Your task to perform on an android device: turn smart compose on in the gmail app Image 0: 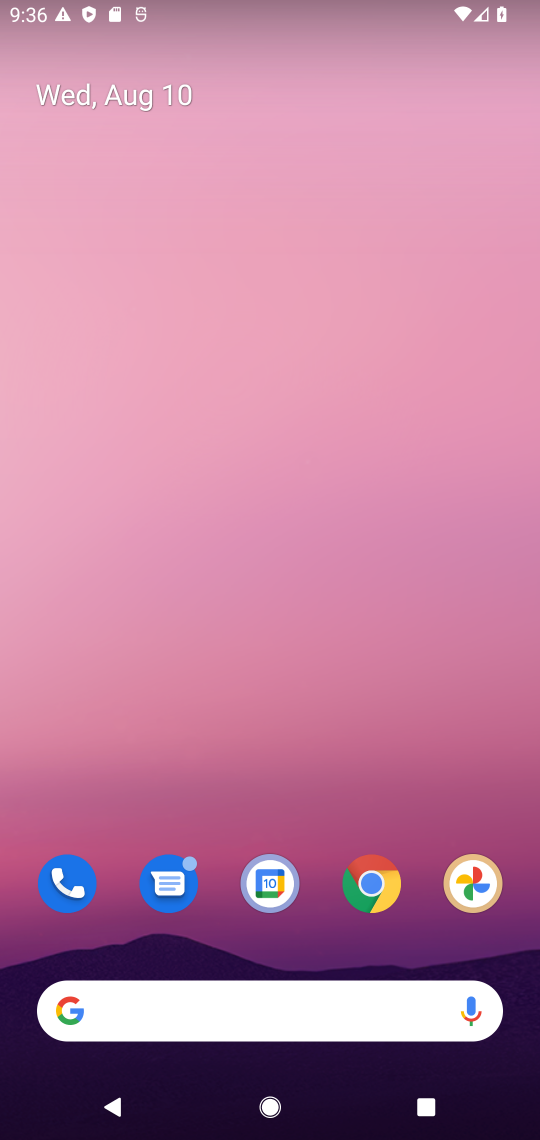
Step 0: press home button
Your task to perform on an android device: turn smart compose on in the gmail app Image 1: 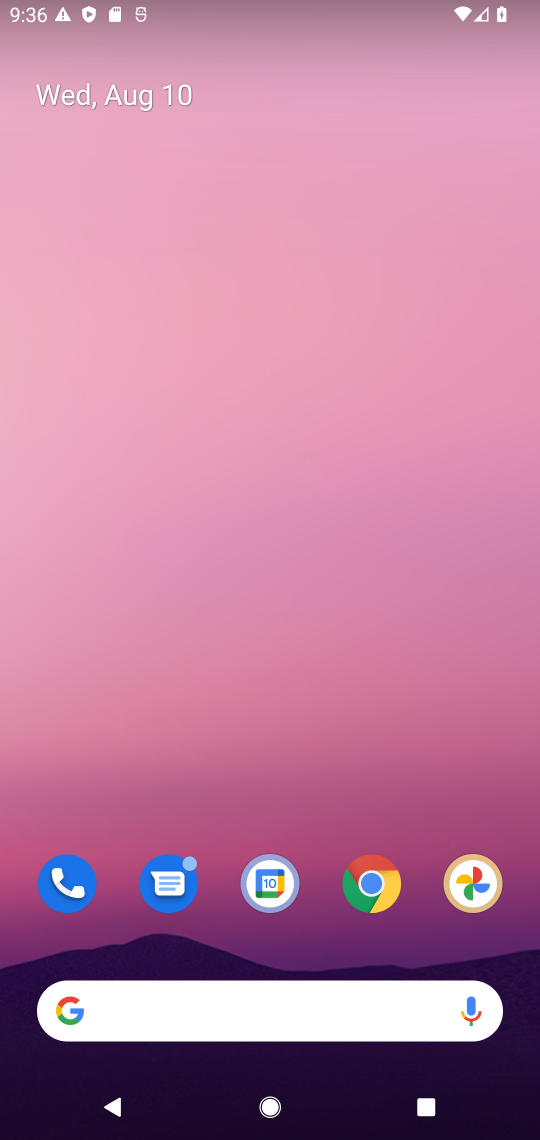
Step 1: press home button
Your task to perform on an android device: turn smart compose on in the gmail app Image 2: 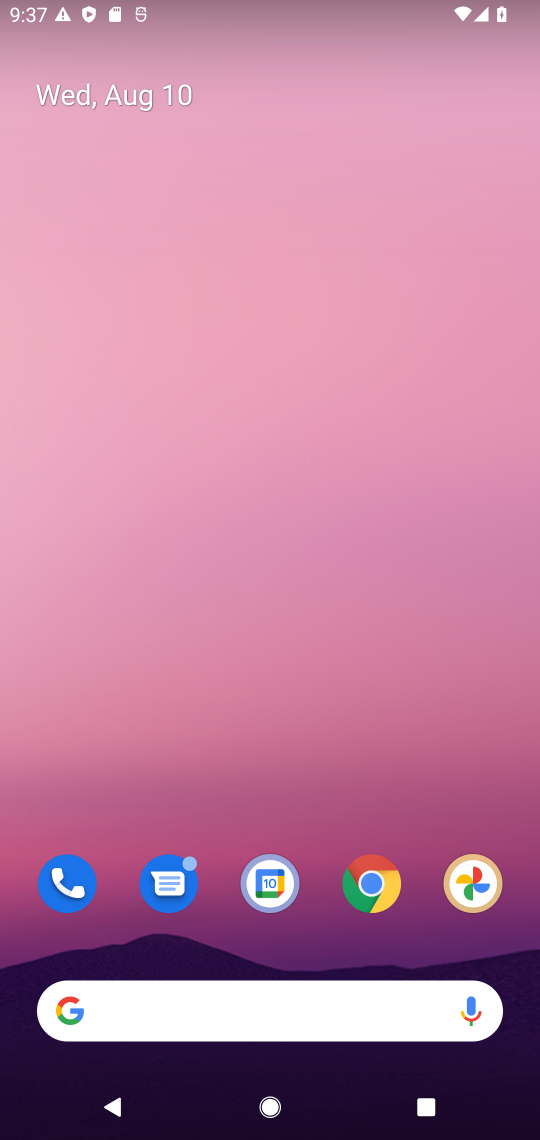
Step 2: drag from (40, 936) to (44, 146)
Your task to perform on an android device: turn smart compose on in the gmail app Image 3: 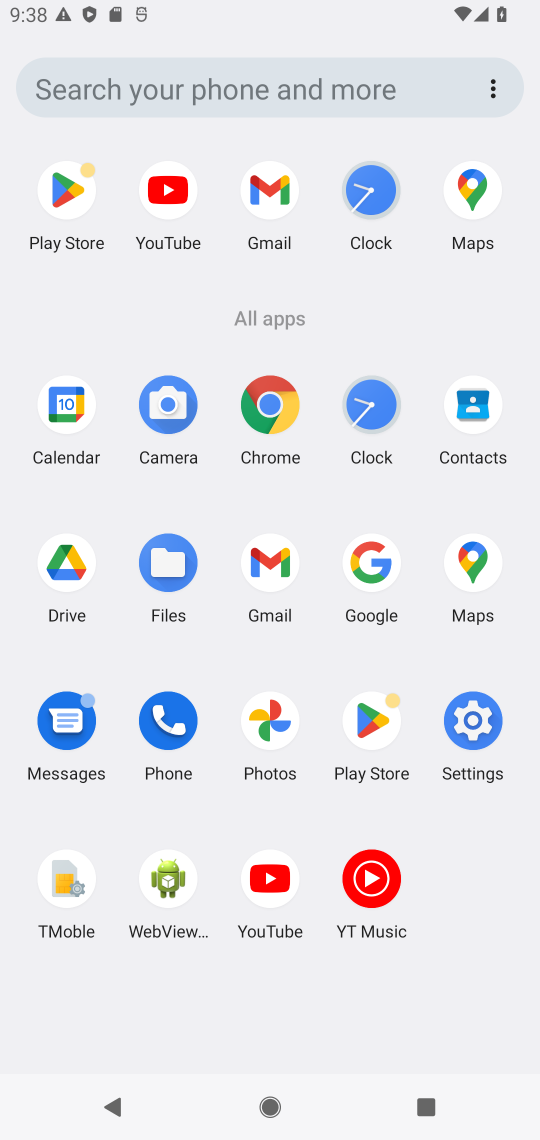
Step 3: click (286, 559)
Your task to perform on an android device: turn smart compose on in the gmail app Image 4: 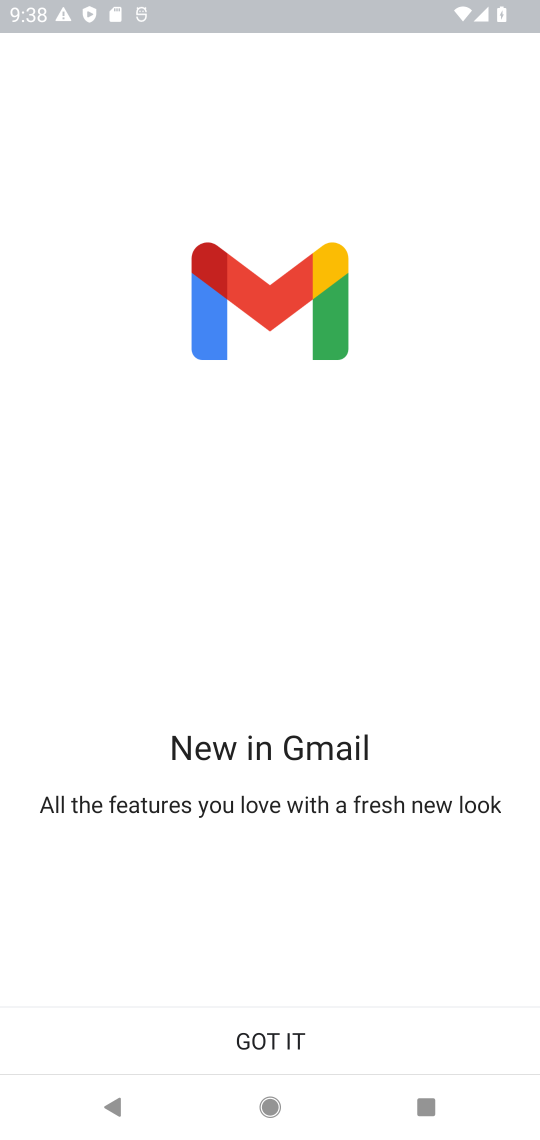
Step 4: click (379, 1020)
Your task to perform on an android device: turn smart compose on in the gmail app Image 5: 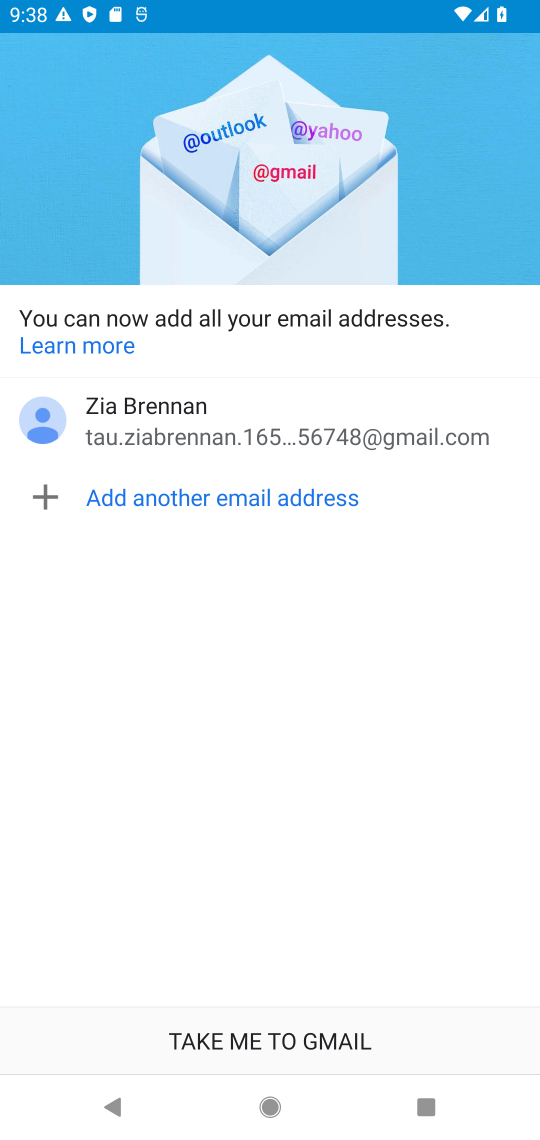
Step 5: click (388, 1050)
Your task to perform on an android device: turn smart compose on in the gmail app Image 6: 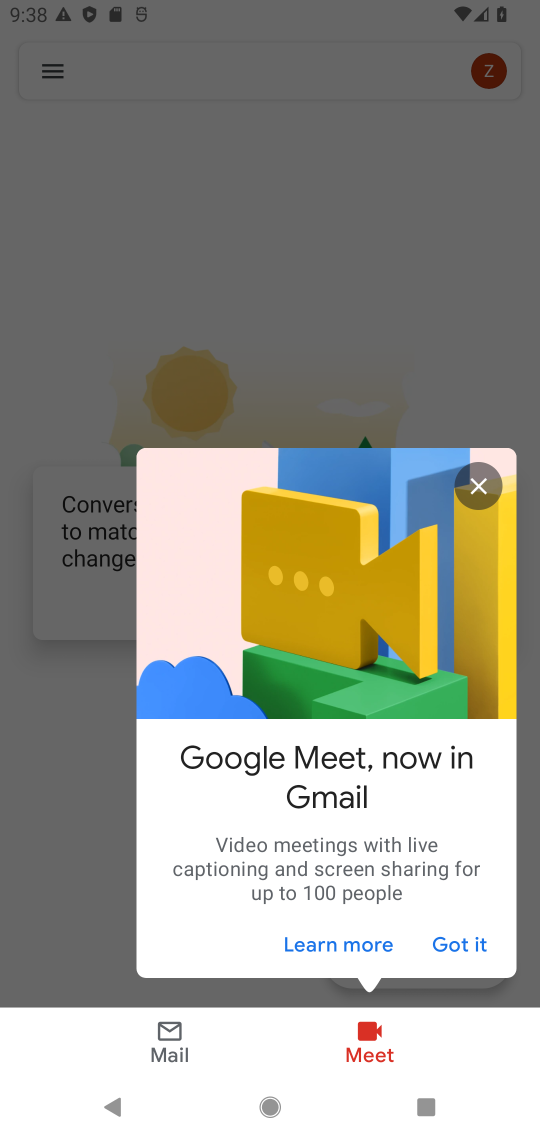
Step 6: click (483, 495)
Your task to perform on an android device: turn smart compose on in the gmail app Image 7: 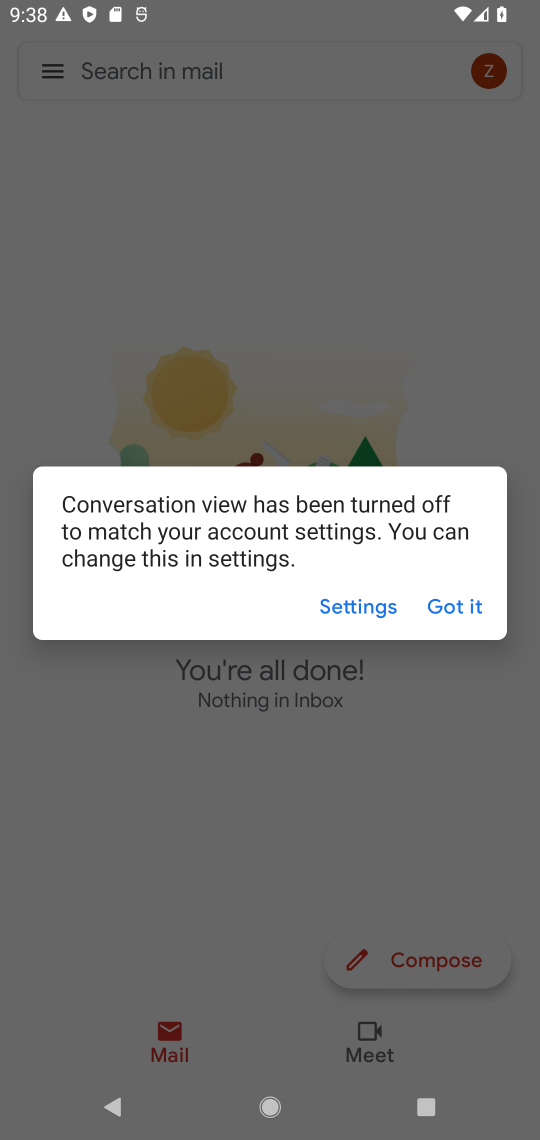
Step 7: click (433, 601)
Your task to perform on an android device: turn smart compose on in the gmail app Image 8: 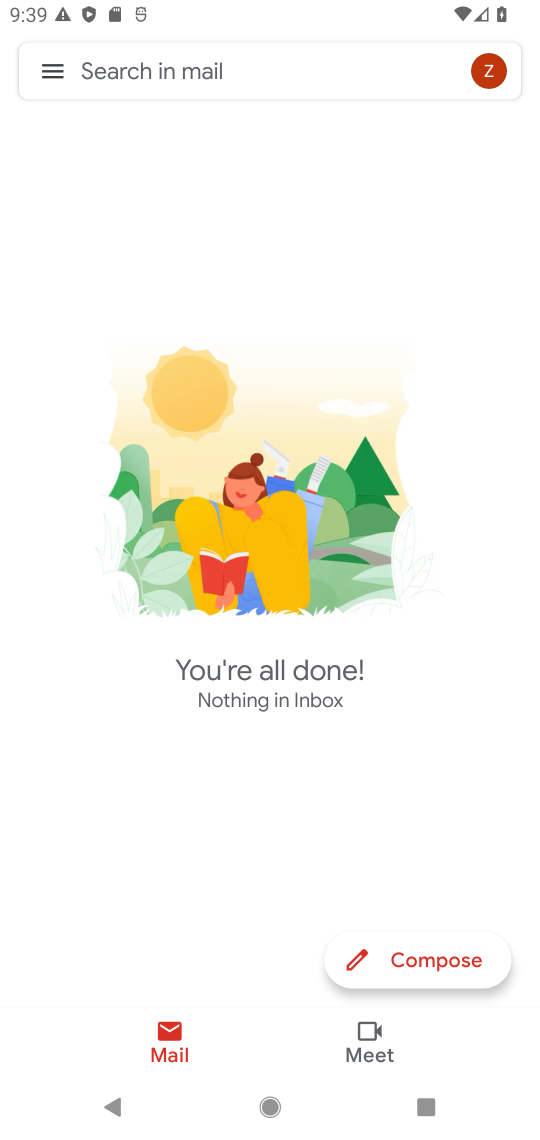
Step 8: click (58, 65)
Your task to perform on an android device: turn smart compose on in the gmail app Image 9: 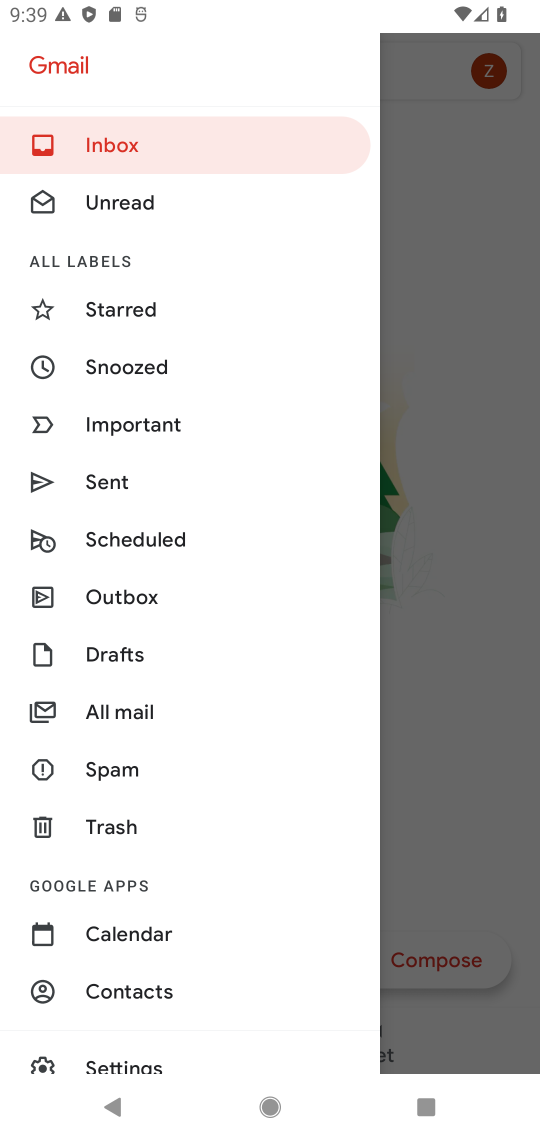
Step 9: click (138, 1059)
Your task to perform on an android device: turn smart compose on in the gmail app Image 10: 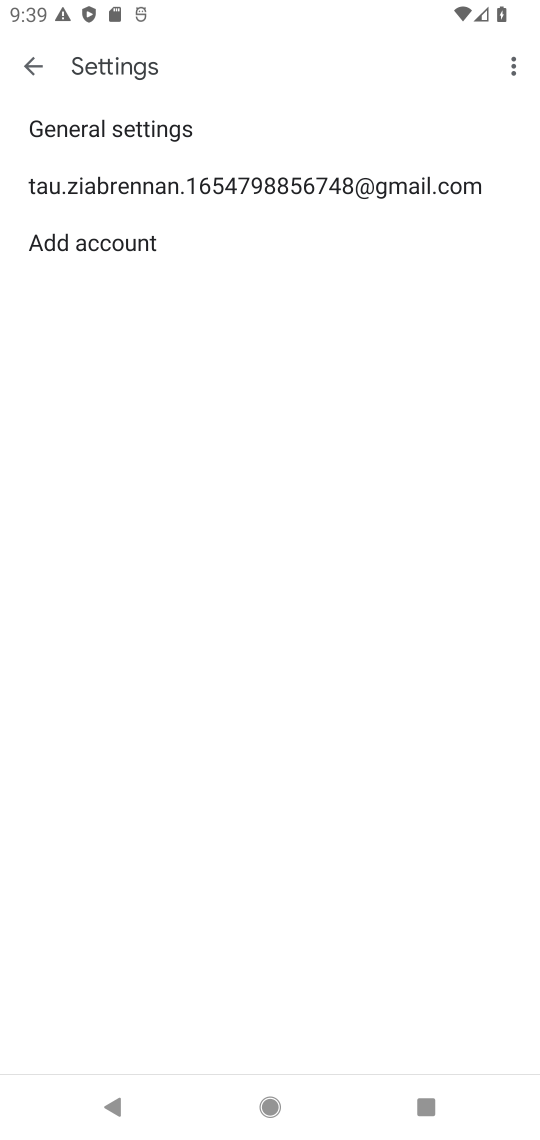
Step 10: click (152, 195)
Your task to perform on an android device: turn smart compose on in the gmail app Image 11: 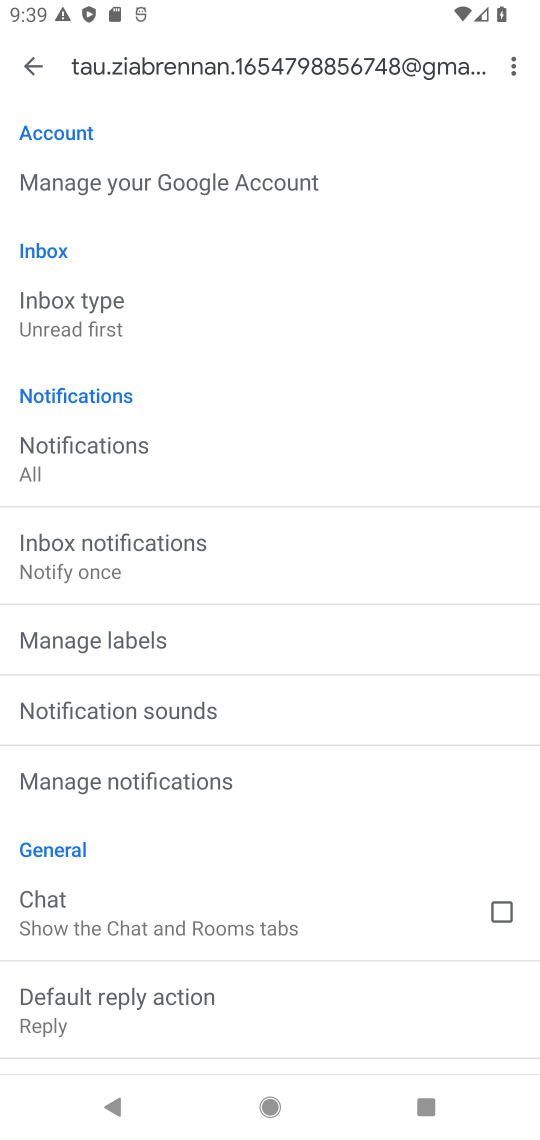
Step 11: task complete